Your task to perform on an android device: Go to Reddit.com Image 0: 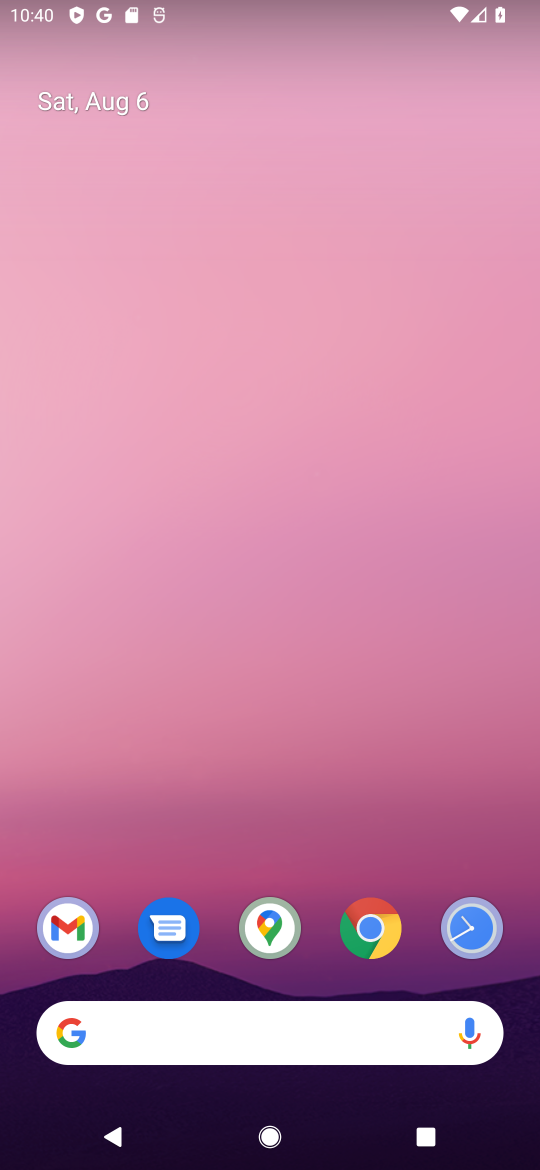
Step 0: click (370, 928)
Your task to perform on an android device: Go to Reddit.com Image 1: 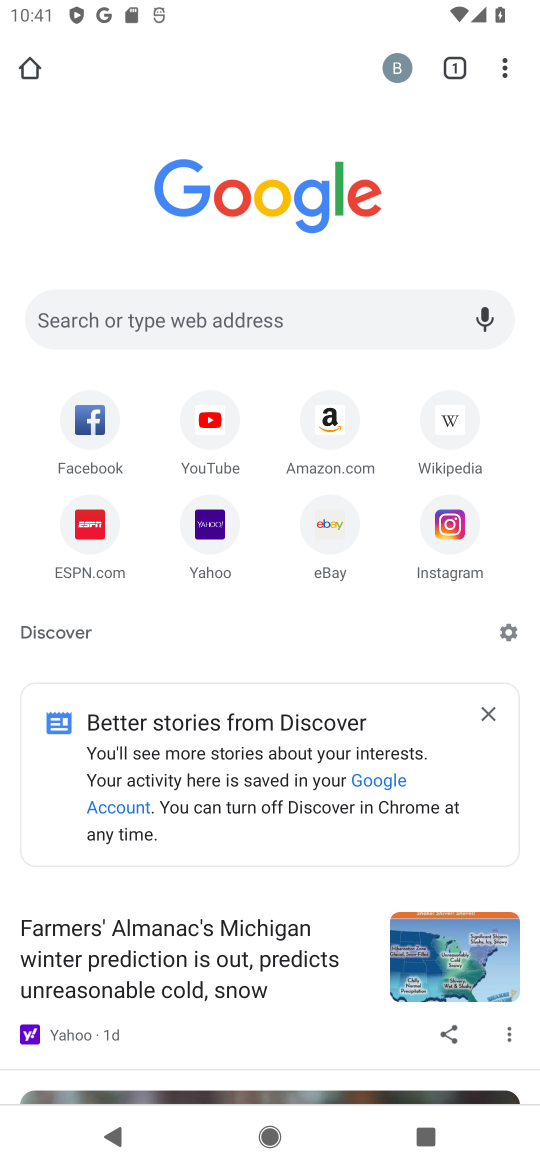
Step 1: click (225, 323)
Your task to perform on an android device: Go to Reddit.com Image 2: 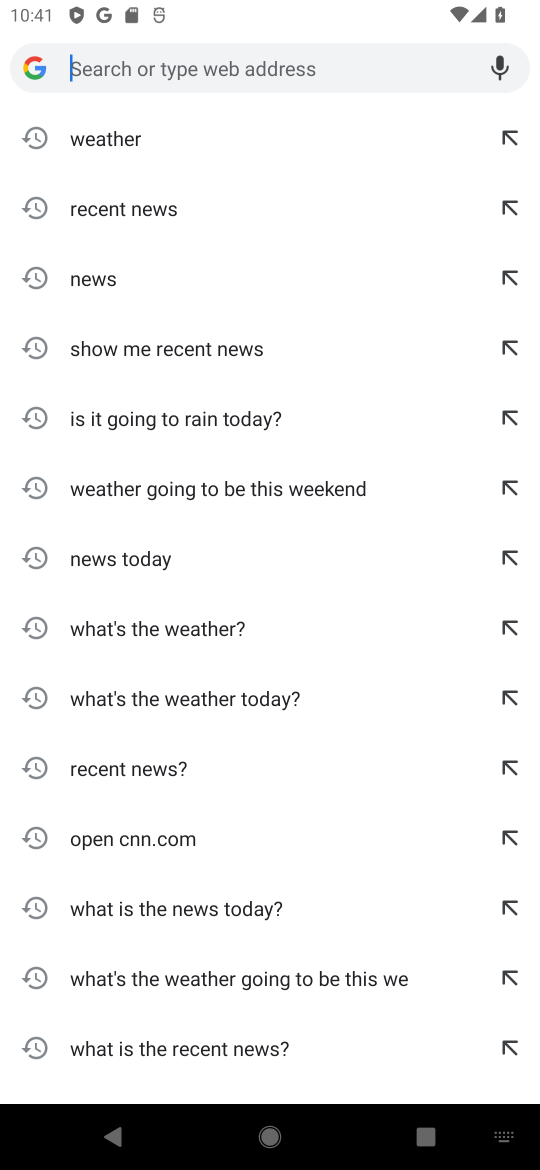
Step 2: type "reddit.com"
Your task to perform on an android device: Go to Reddit.com Image 3: 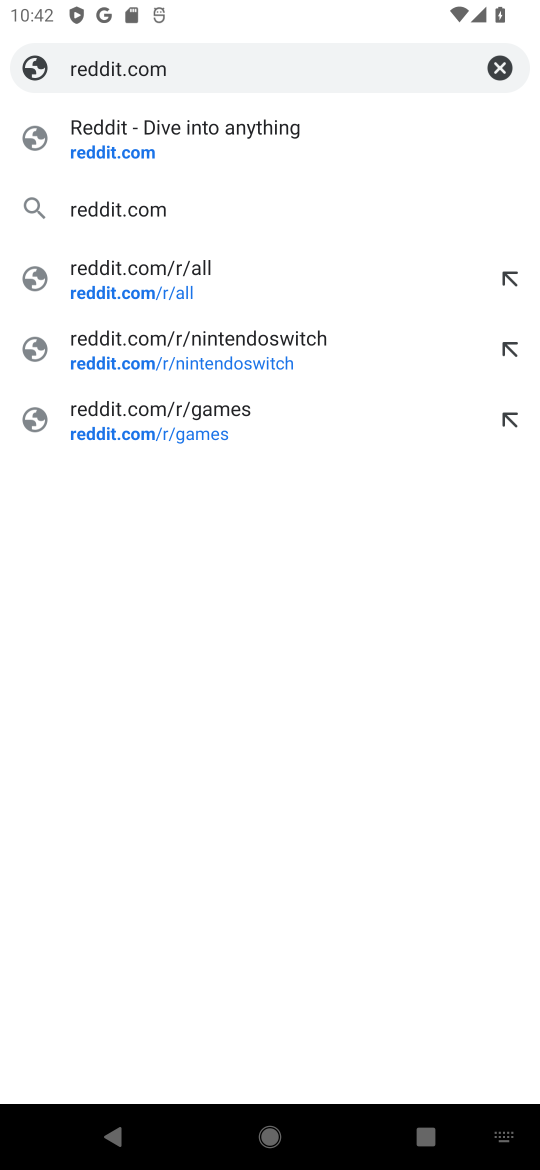
Step 3: click (191, 126)
Your task to perform on an android device: Go to Reddit.com Image 4: 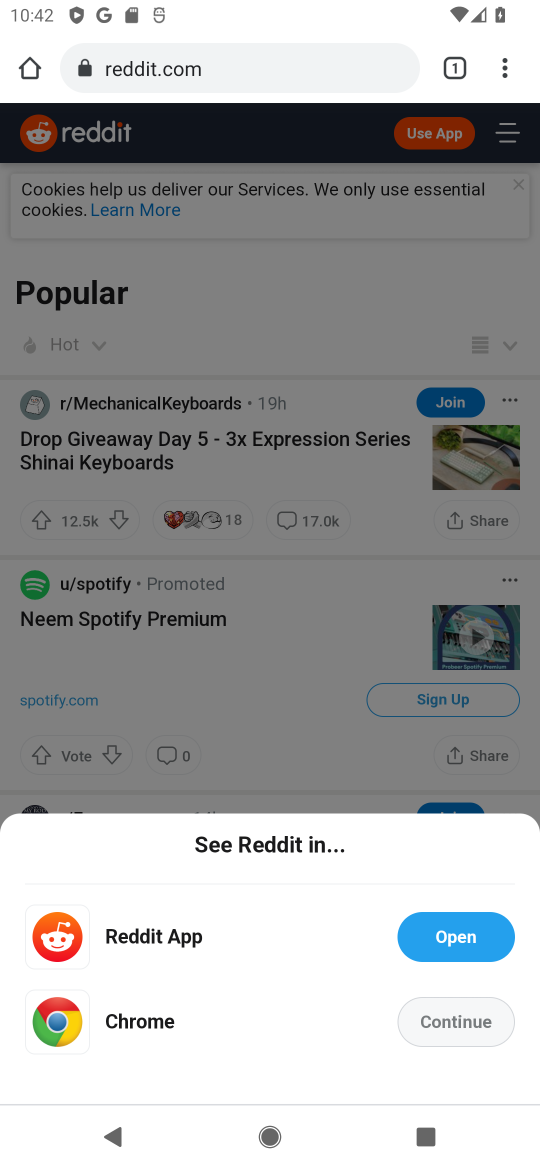
Step 4: click (435, 949)
Your task to perform on an android device: Go to Reddit.com Image 5: 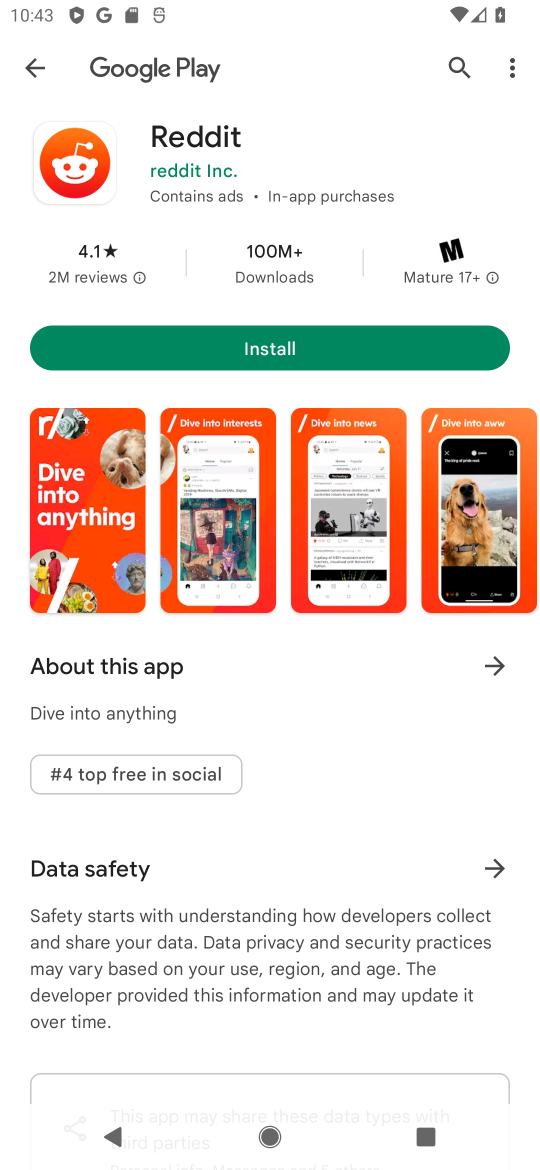
Step 5: task complete